Your task to perform on an android device: Search for sushi restaurants on Maps Image 0: 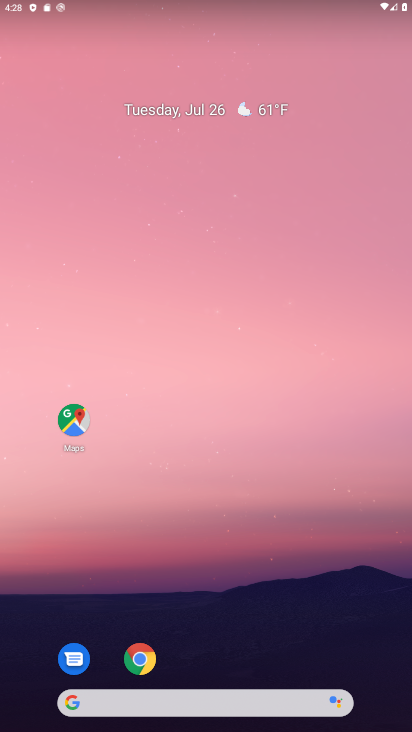
Step 0: click (72, 420)
Your task to perform on an android device: Search for sushi restaurants on Maps Image 1: 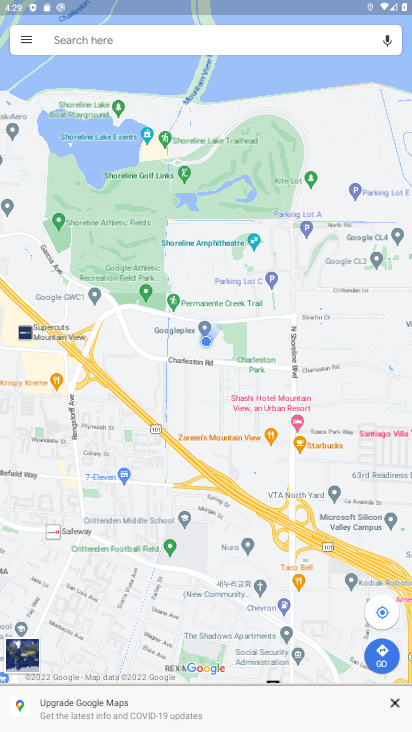
Step 1: click (113, 41)
Your task to perform on an android device: Search for sushi restaurants on Maps Image 2: 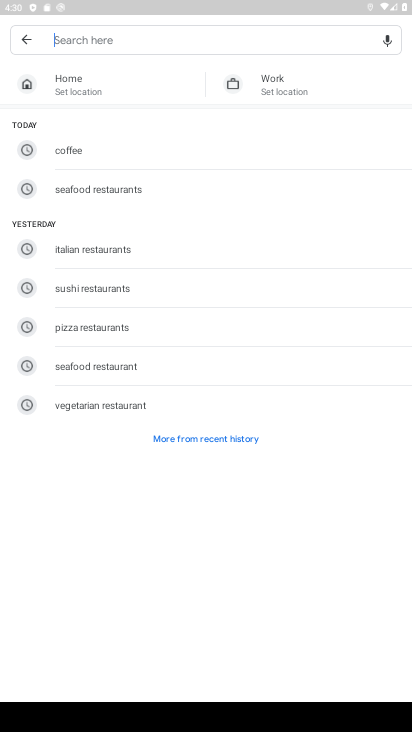
Step 2: type "sushi restaurants "
Your task to perform on an android device: Search for sushi restaurants on Maps Image 3: 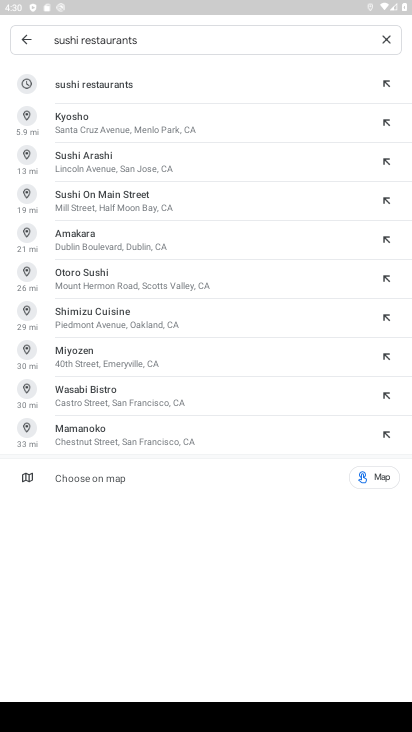
Step 3: press enter
Your task to perform on an android device: Search for sushi restaurants on Maps Image 4: 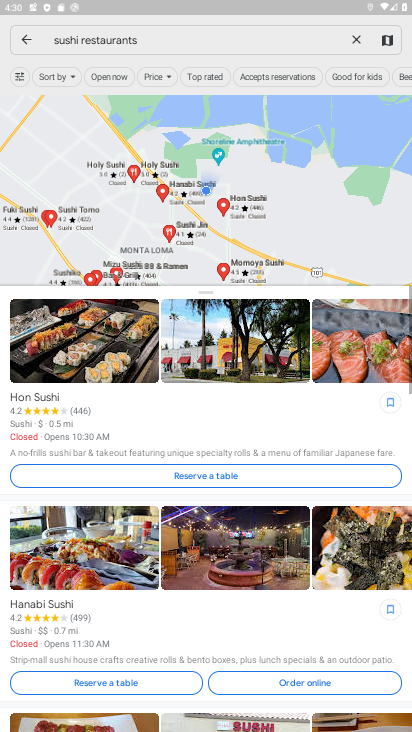
Step 4: task complete